Your task to perform on an android device: Search for Mexican restaurants on Maps Image 0: 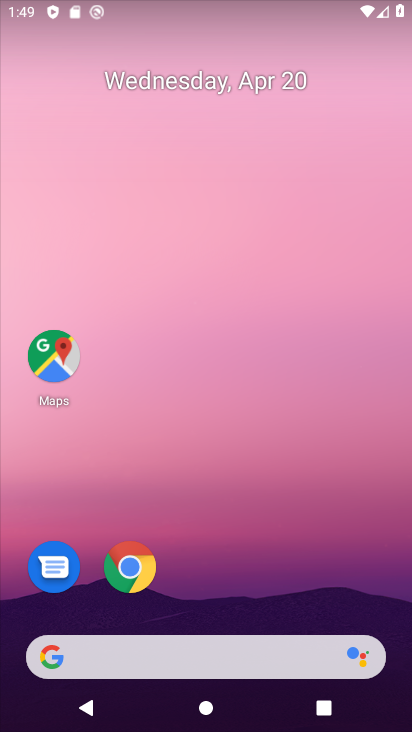
Step 0: drag from (146, 12) to (197, 468)
Your task to perform on an android device: Search for Mexican restaurants on Maps Image 1: 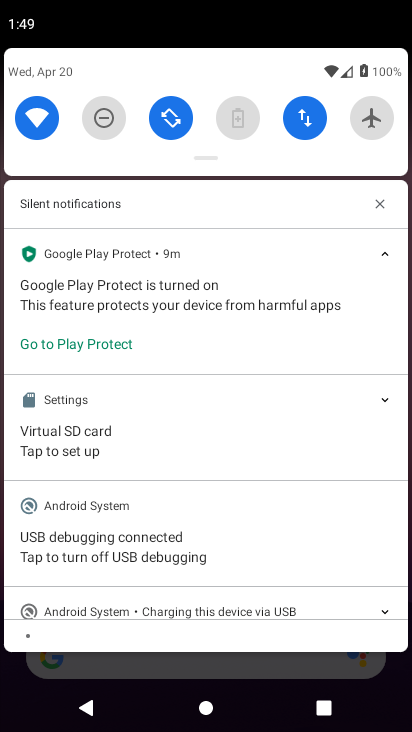
Step 1: drag from (203, 168) to (215, 445)
Your task to perform on an android device: Search for Mexican restaurants on Maps Image 2: 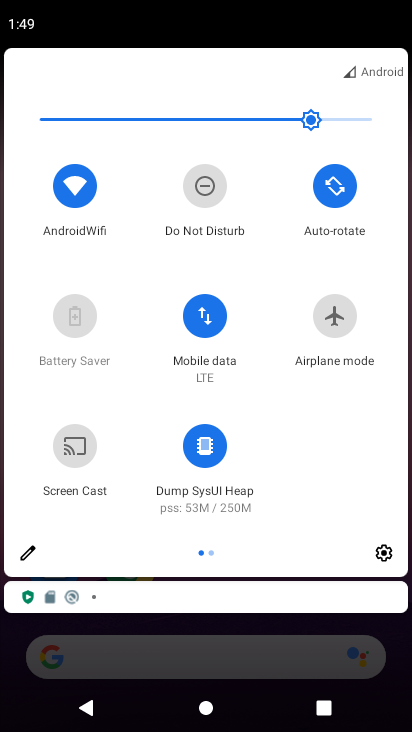
Step 2: press back button
Your task to perform on an android device: Search for Mexican restaurants on Maps Image 3: 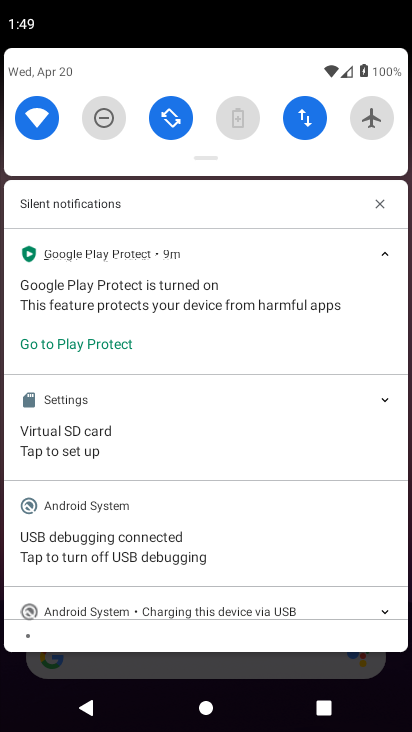
Step 3: press home button
Your task to perform on an android device: Search for Mexican restaurants on Maps Image 4: 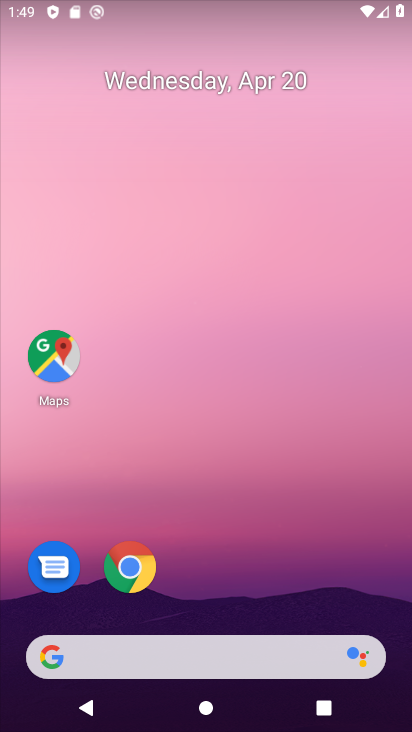
Step 4: click (66, 356)
Your task to perform on an android device: Search for Mexican restaurants on Maps Image 5: 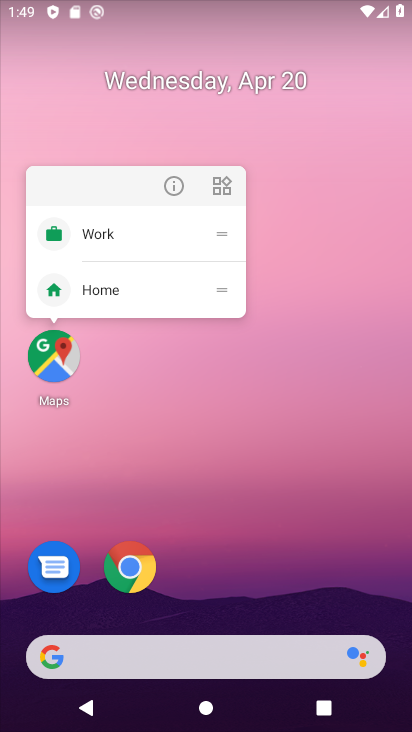
Step 5: click (66, 356)
Your task to perform on an android device: Search for Mexican restaurants on Maps Image 6: 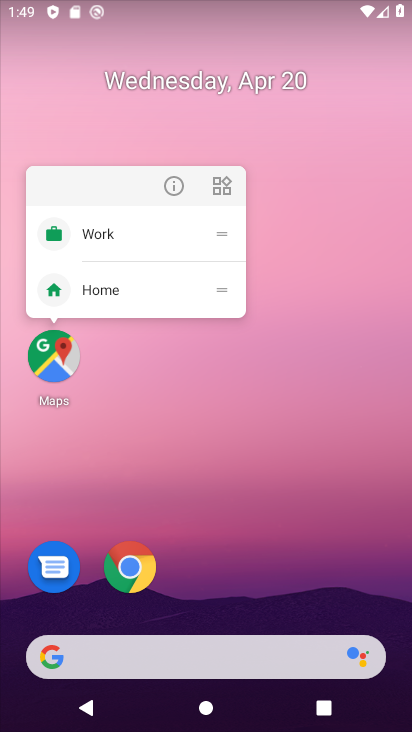
Step 6: click (66, 356)
Your task to perform on an android device: Search for Mexican restaurants on Maps Image 7: 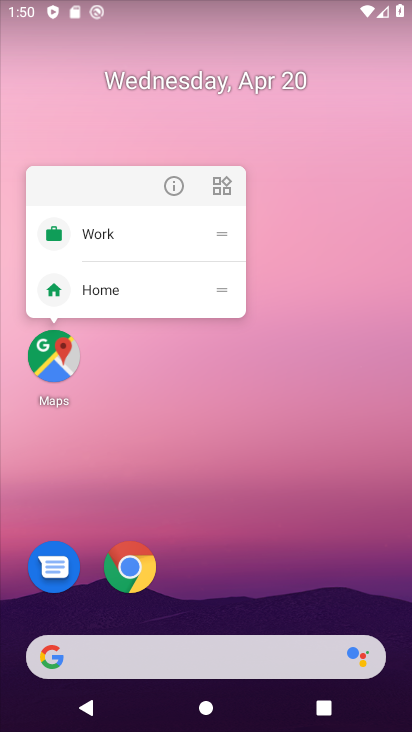
Step 7: click (67, 364)
Your task to perform on an android device: Search for Mexican restaurants on Maps Image 8: 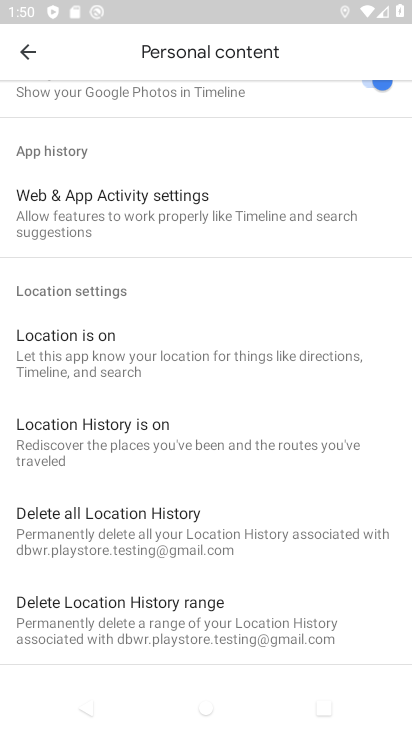
Step 8: press back button
Your task to perform on an android device: Search for Mexican restaurants on Maps Image 9: 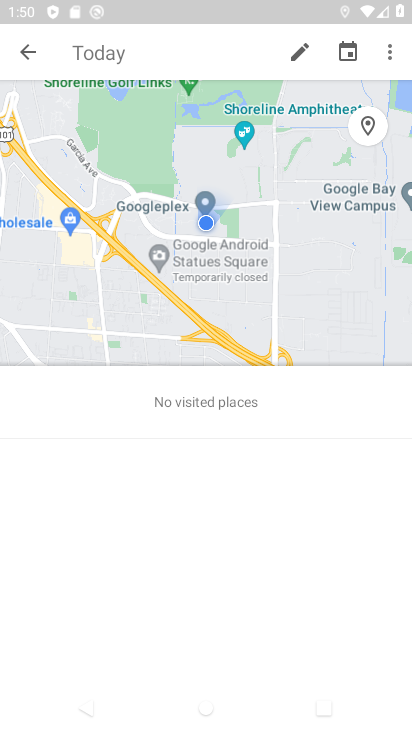
Step 9: press back button
Your task to perform on an android device: Search for Mexican restaurants on Maps Image 10: 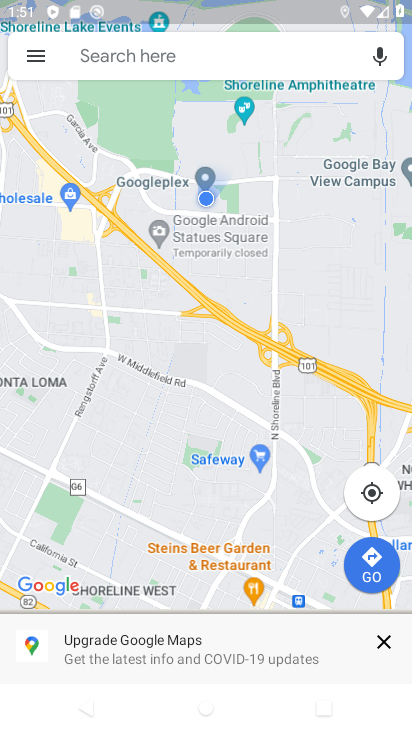
Step 10: click (206, 60)
Your task to perform on an android device: Search for Mexican restaurants on Maps Image 11: 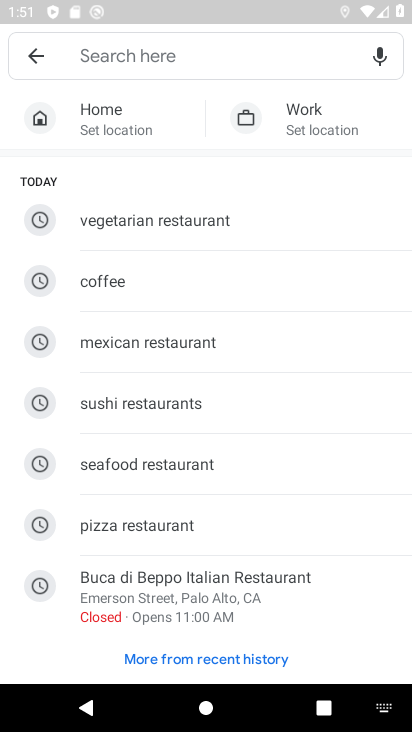
Step 11: click (175, 334)
Your task to perform on an android device: Search for Mexican restaurants on Maps Image 12: 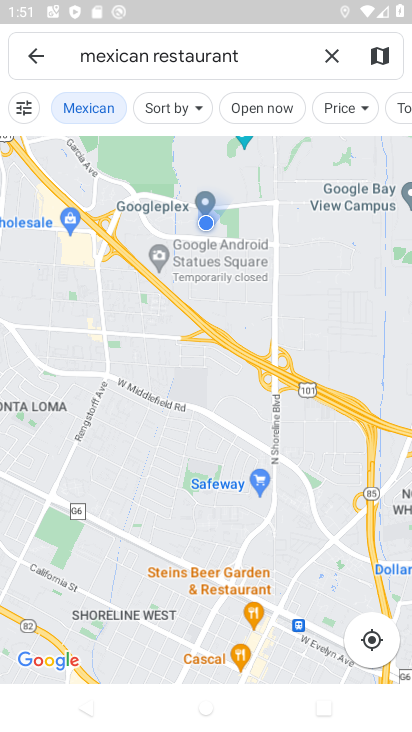
Step 12: task complete